Your task to perform on an android device: install app "Google Sheets" Image 0: 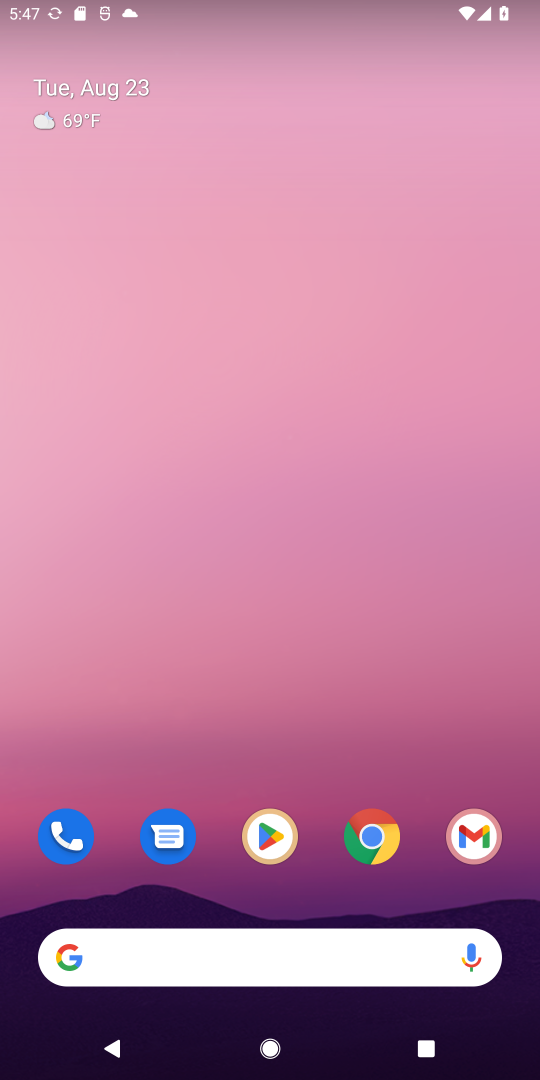
Step 0: click (268, 829)
Your task to perform on an android device: install app "Google Sheets" Image 1: 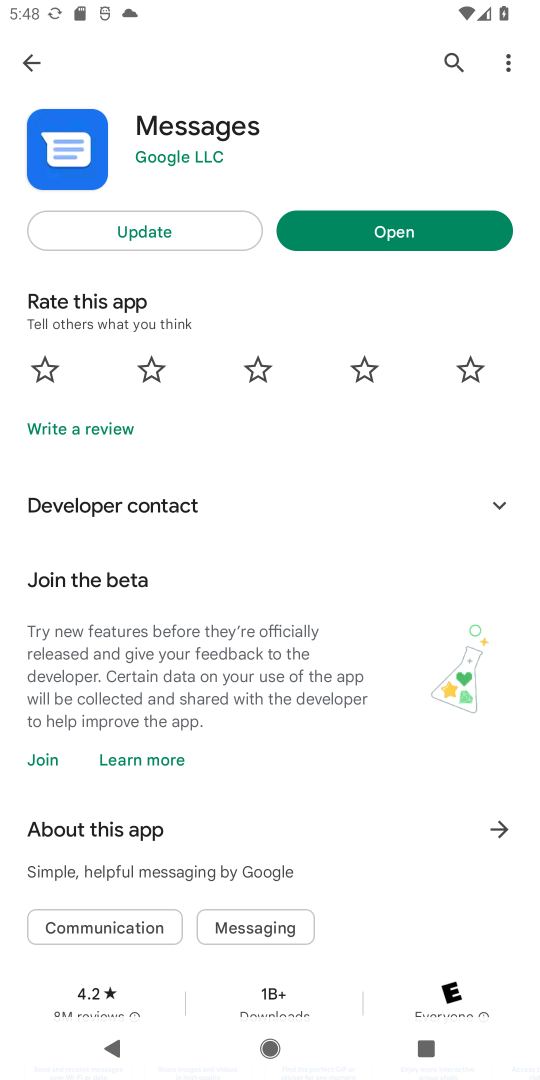
Step 1: press home button
Your task to perform on an android device: install app "Google Sheets" Image 2: 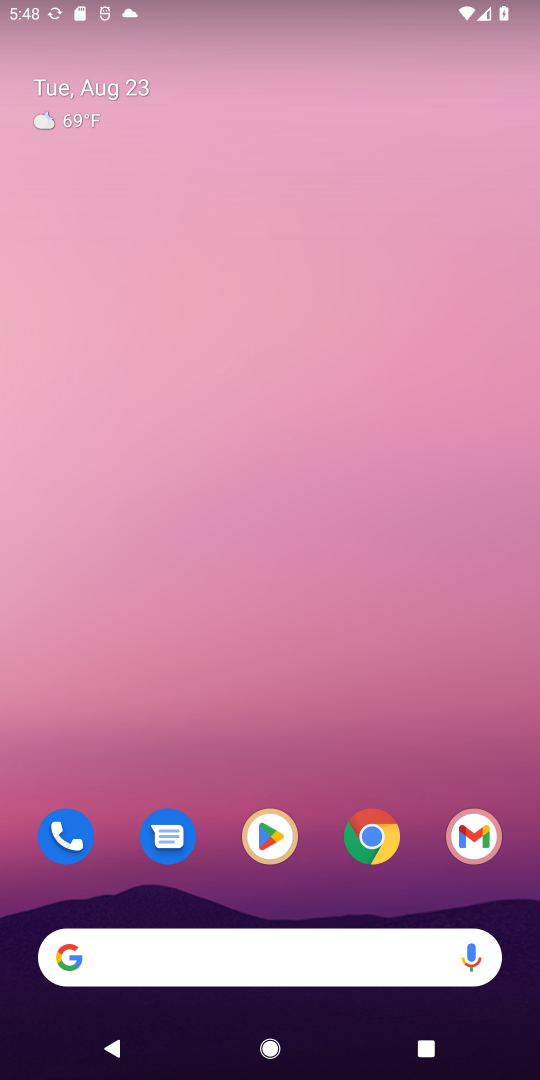
Step 2: drag from (294, 876) to (327, 353)
Your task to perform on an android device: install app "Google Sheets" Image 3: 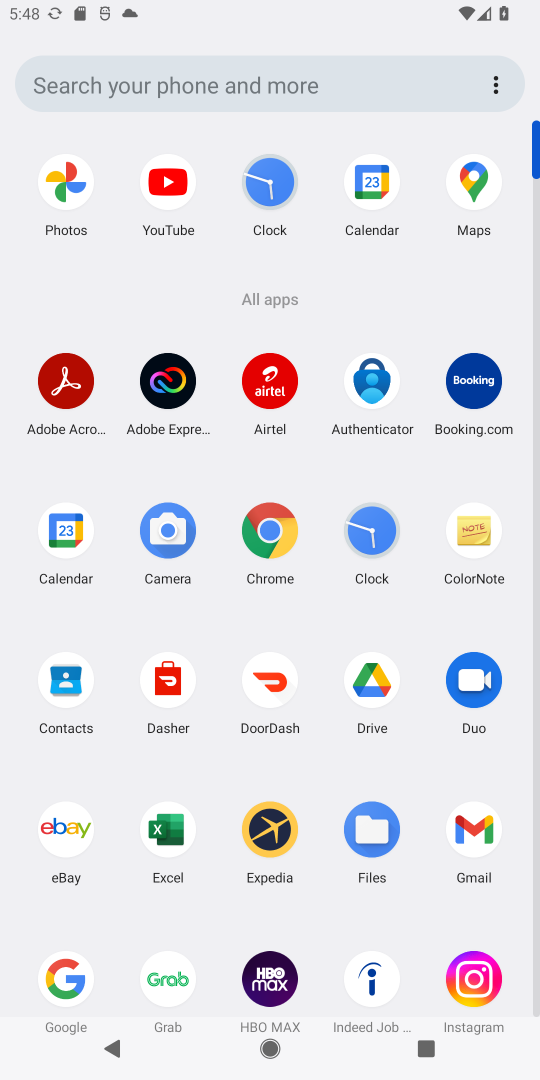
Step 3: drag from (216, 932) to (241, 546)
Your task to perform on an android device: install app "Google Sheets" Image 4: 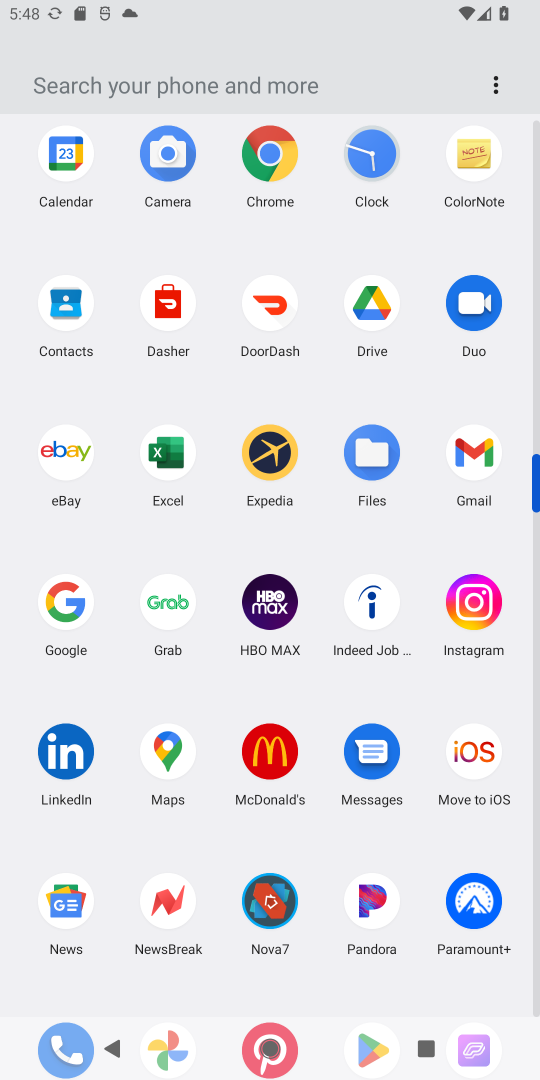
Step 4: drag from (333, 973) to (320, 556)
Your task to perform on an android device: install app "Google Sheets" Image 5: 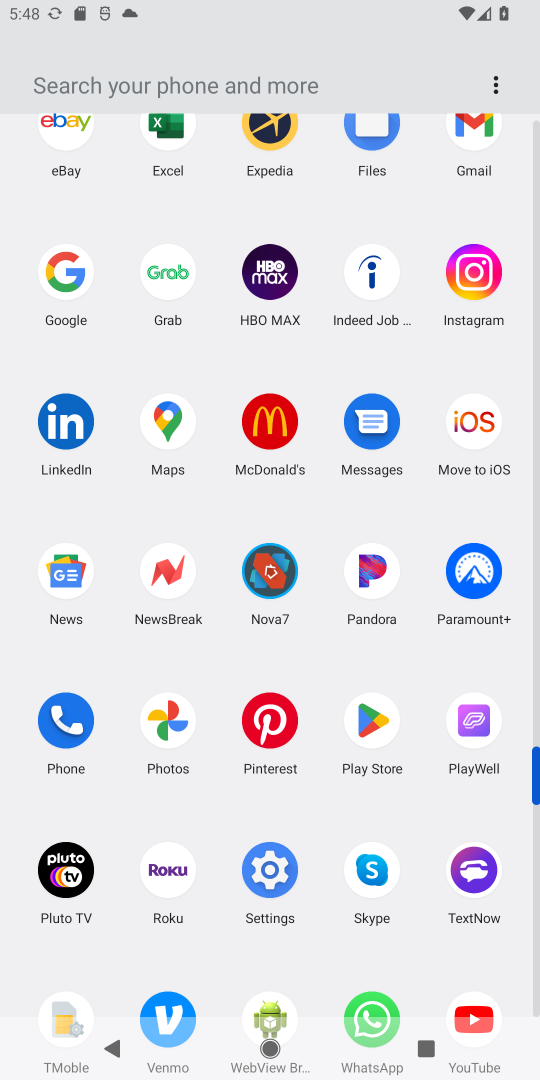
Step 5: click (369, 722)
Your task to perform on an android device: install app "Google Sheets" Image 6: 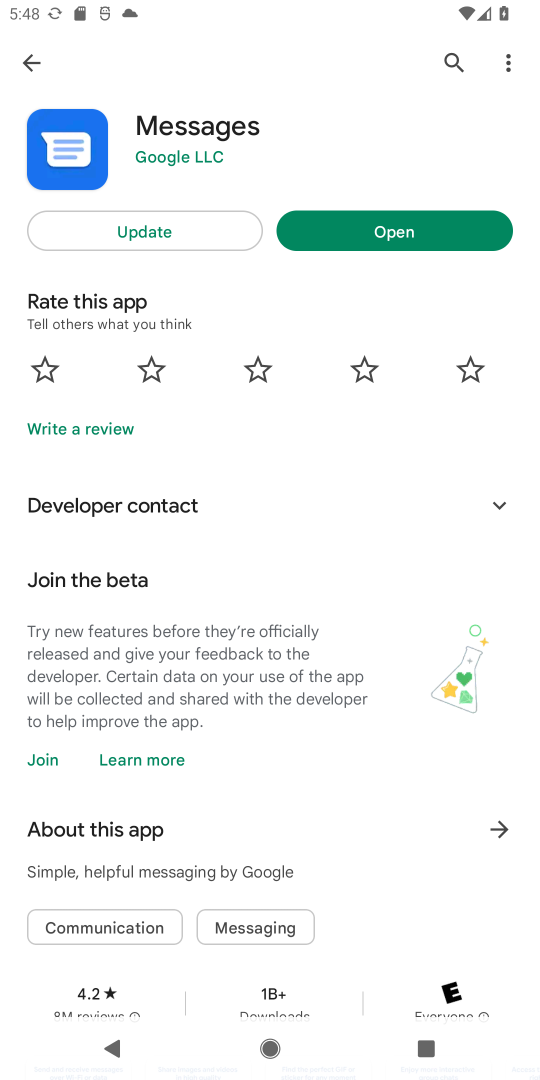
Step 6: click (453, 52)
Your task to perform on an android device: install app "Google Sheets" Image 7: 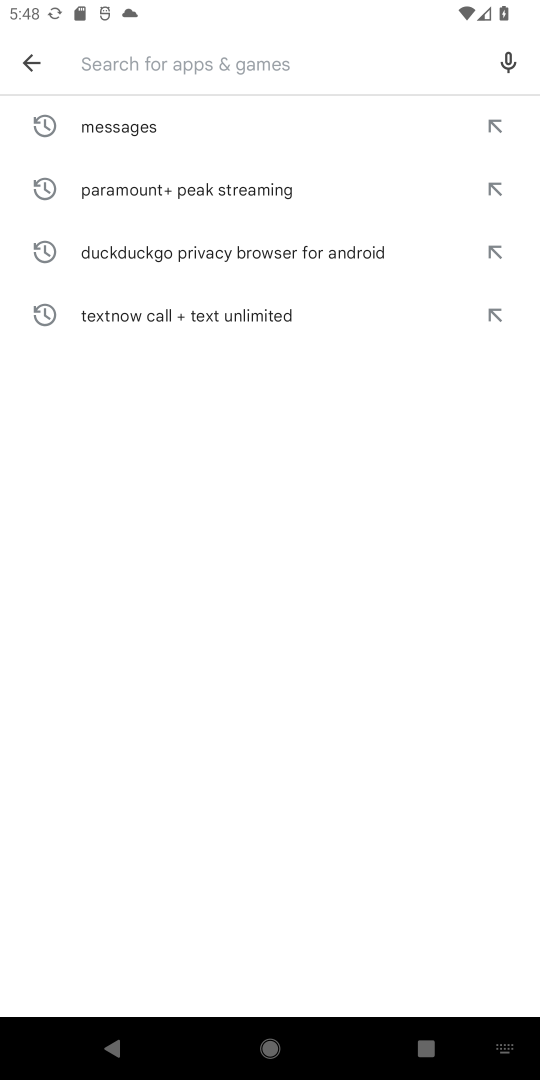
Step 7: type "Google Sheets"
Your task to perform on an android device: install app "Google Sheets" Image 8: 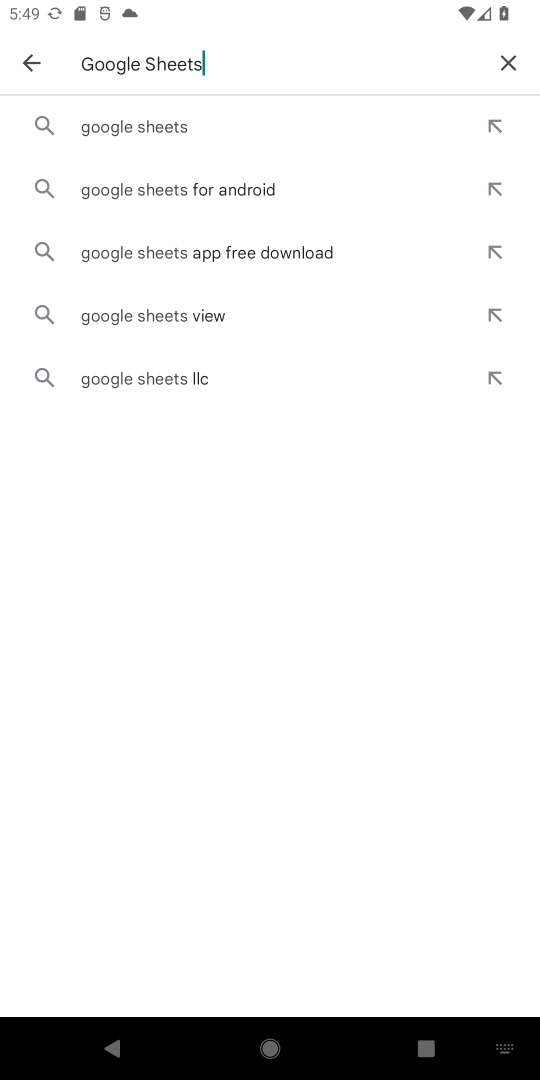
Step 8: click (157, 119)
Your task to perform on an android device: install app "Google Sheets" Image 9: 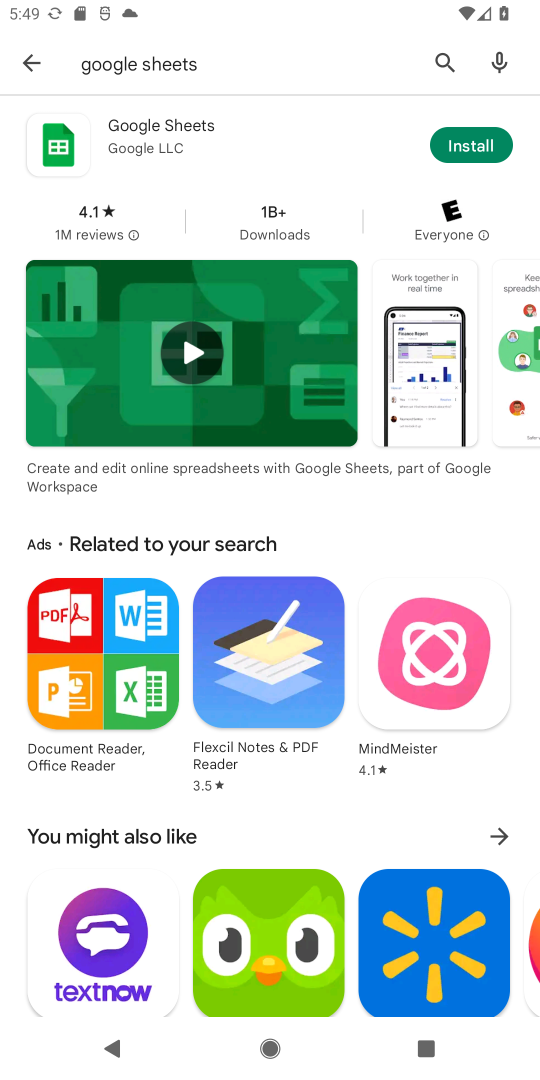
Step 9: click (464, 142)
Your task to perform on an android device: install app "Google Sheets" Image 10: 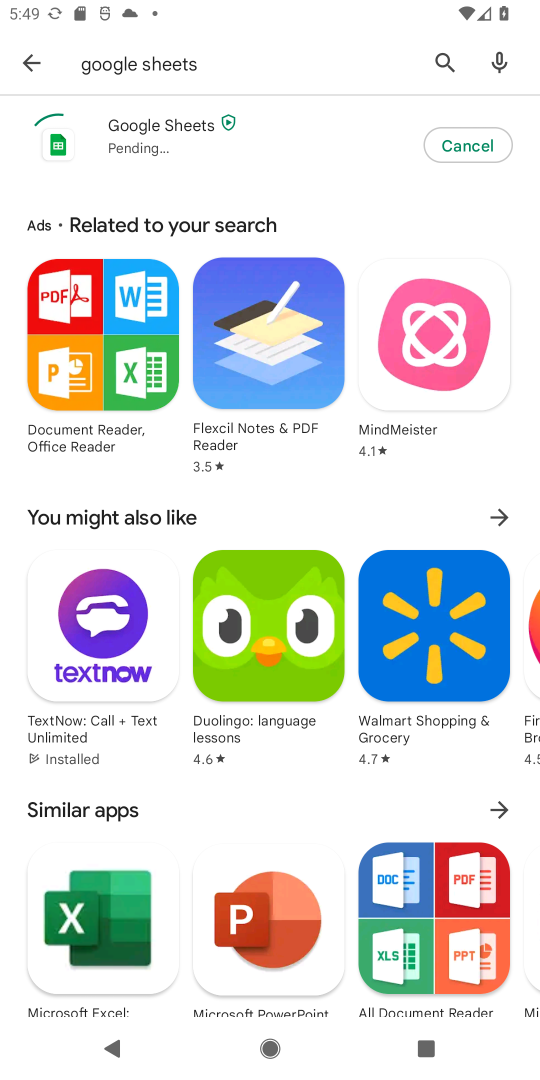
Step 10: click (133, 140)
Your task to perform on an android device: install app "Google Sheets" Image 11: 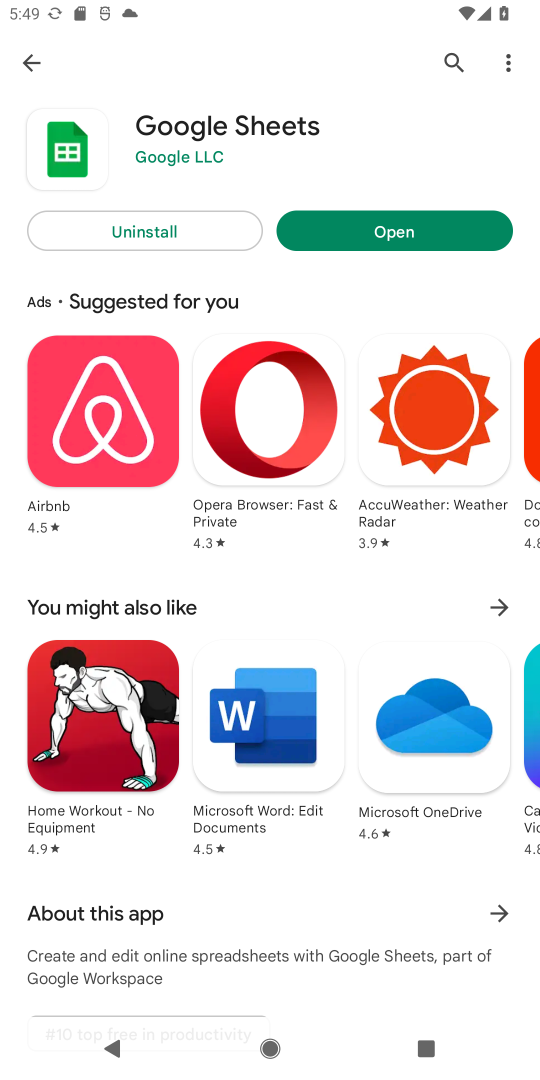
Step 11: task complete